Your task to perform on an android device: Go to internet settings Image 0: 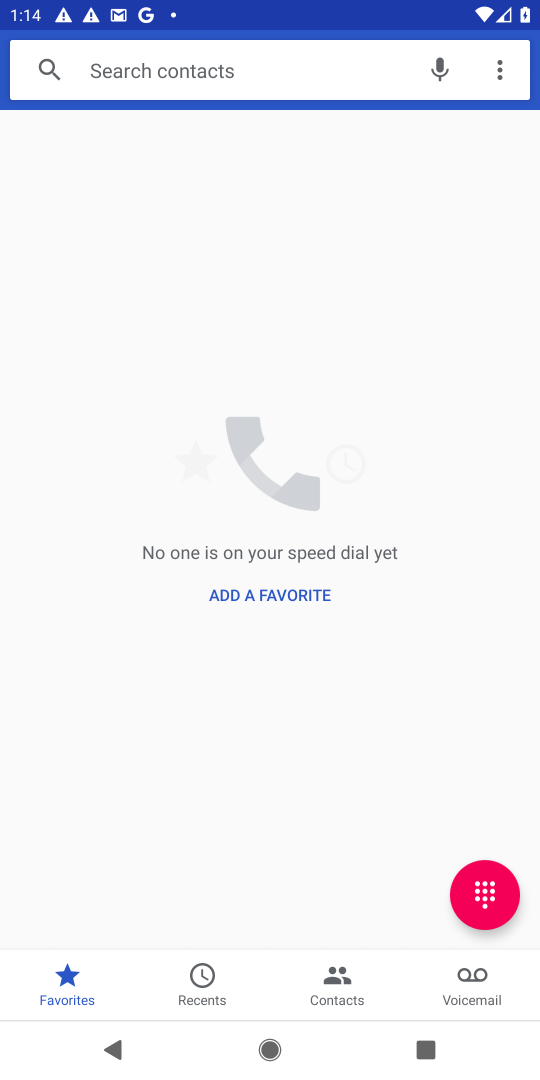
Step 0: press home button
Your task to perform on an android device: Go to internet settings Image 1: 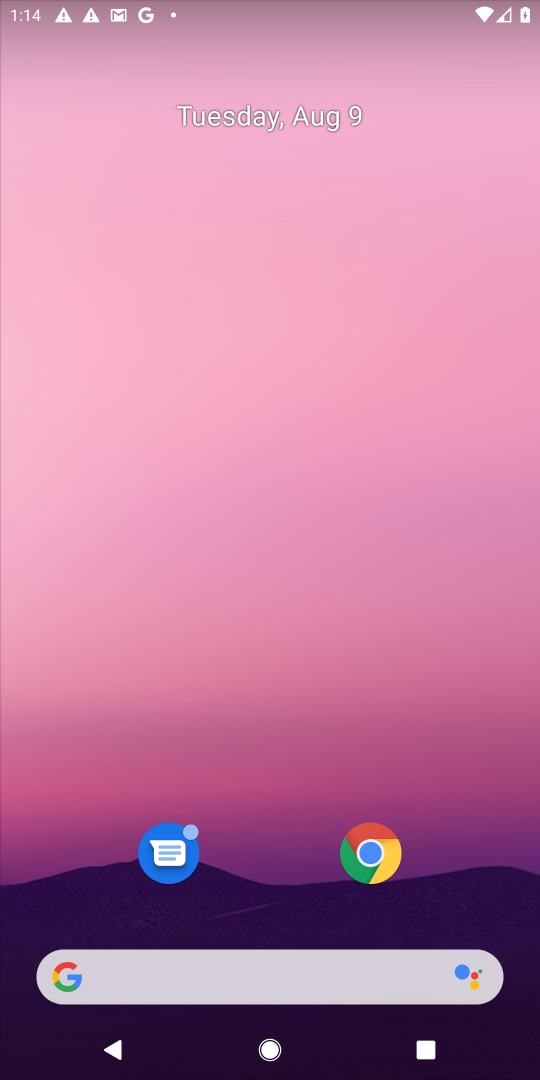
Step 1: drag from (297, 898) to (454, 5)
Your task to perform on an android device: Go to internet settings Image 2: 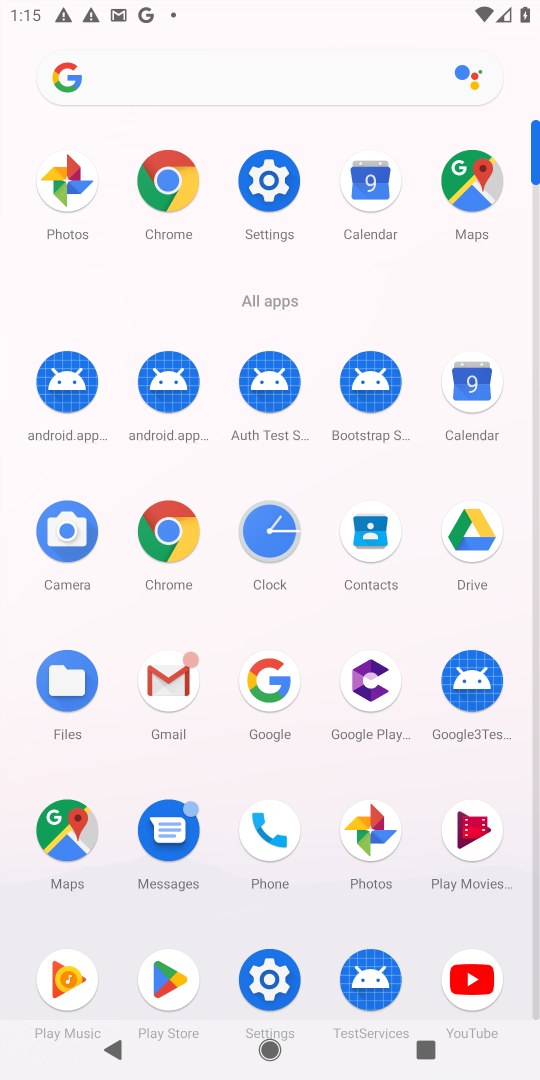
Step 2: click (258, 166)
Your task to perform on an android device: Go to internet settings Image 3: 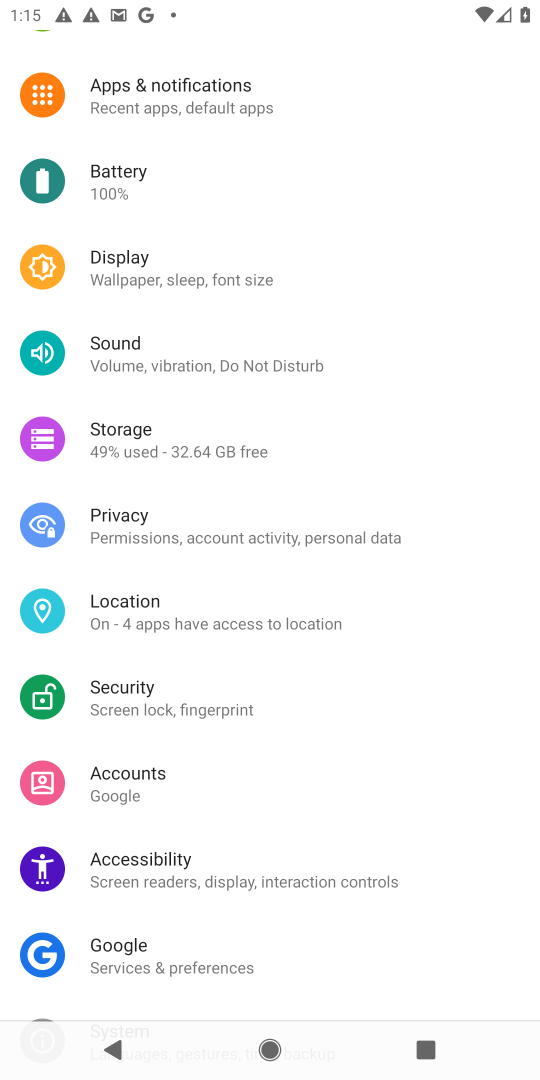
Step 3: drag from (105, 108) to (455, 718)
Your task to perform on an android device: Go to internet settings Image 4: 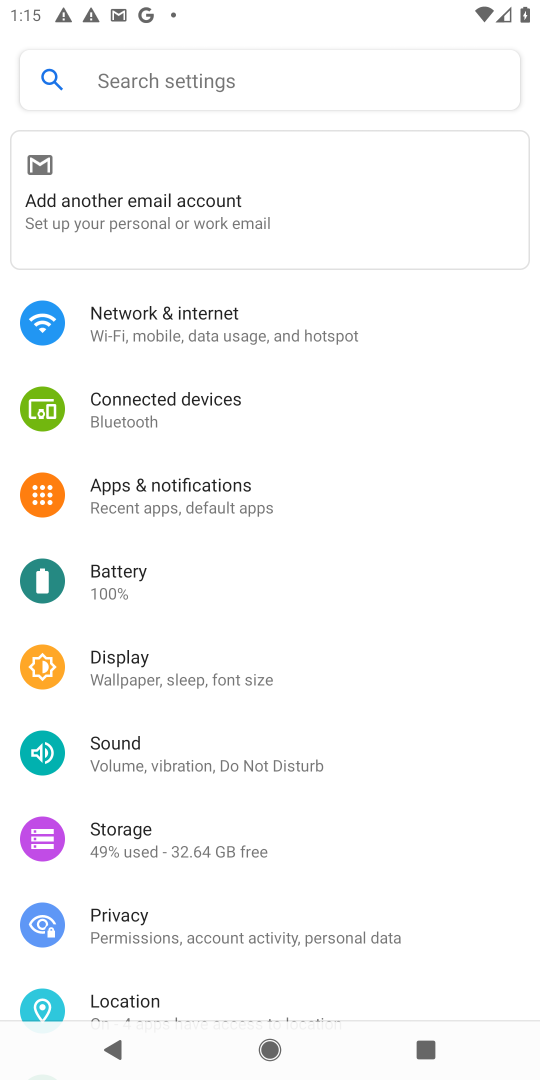
Step 4: click (194, 316)
Your task to perform on an android device: Go to internet settings Image 5: 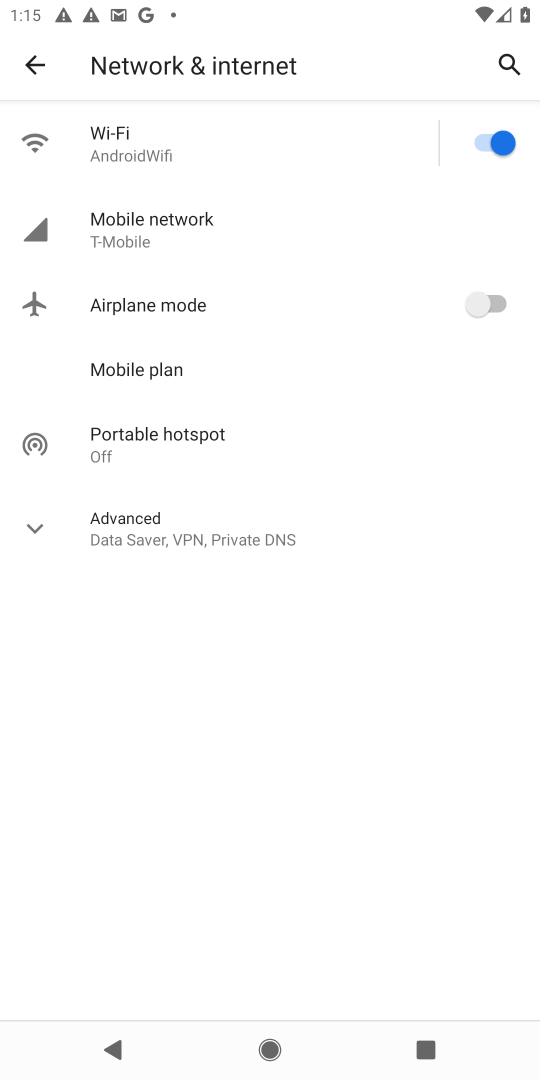
Step 5: click (45, 521)
Your task to perform on an android device: Go to internet settings Image 6: 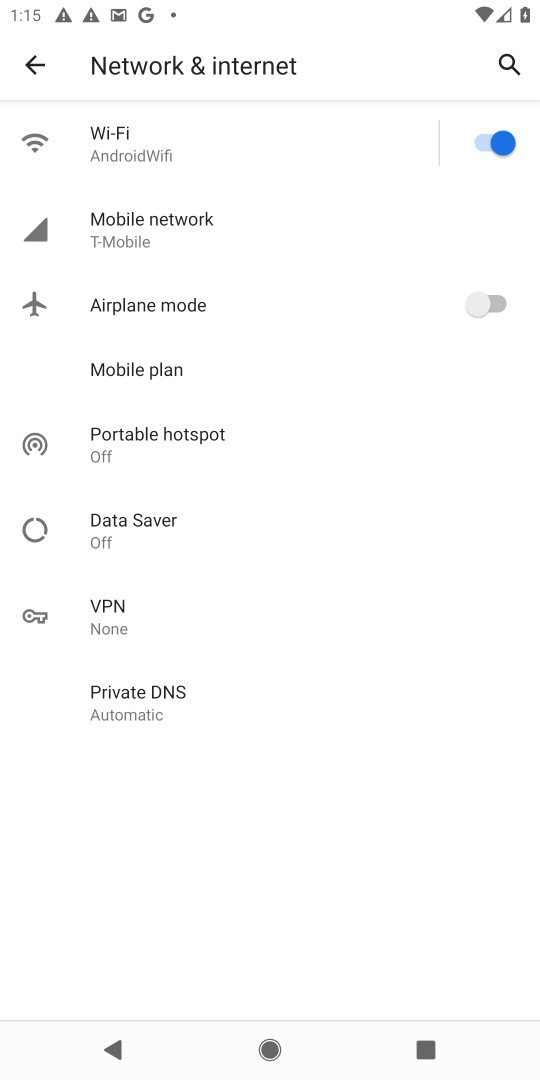
Step 6: task complete